Your task to perform on an android device: Go to Reddit.com Image 0: 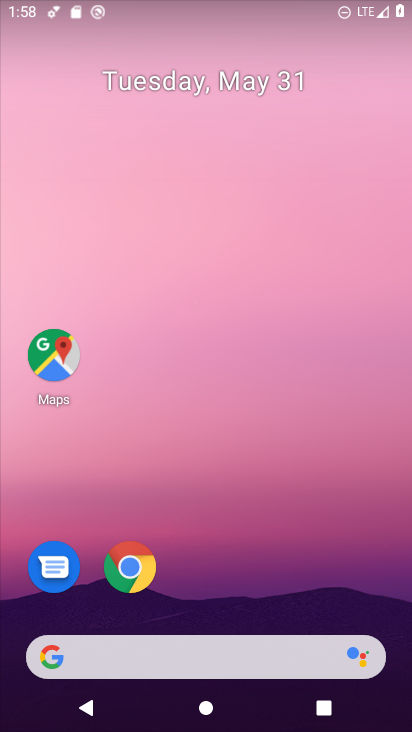
Step 0: click (144, 566)
Your task to perform on an android device: Go to Reddit.com Image 1: 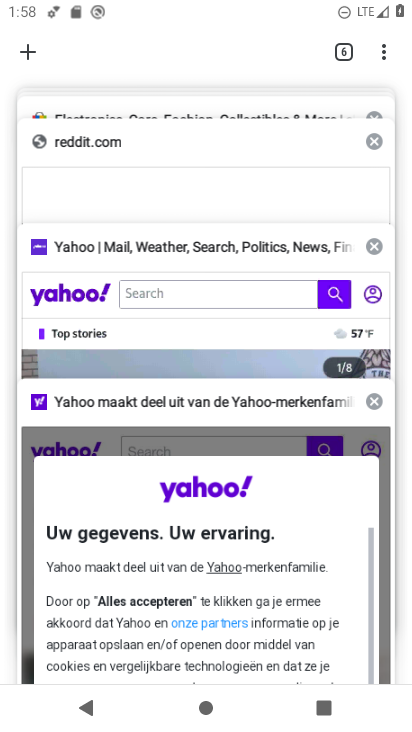
Step 1: click (20, 46)
Your task to perform on an android device: Go to Reddit.com Image 2: 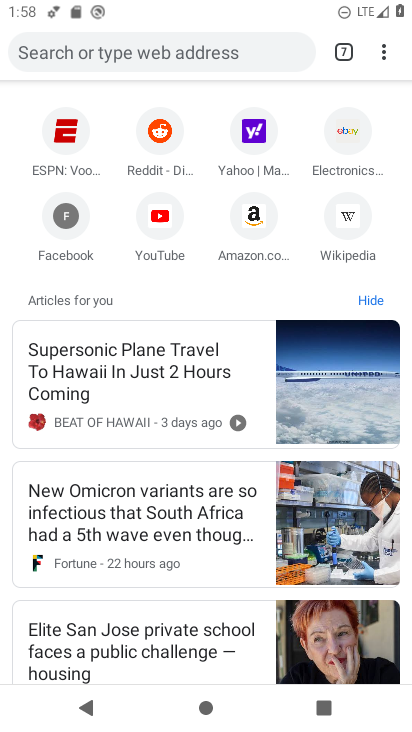
Step 2: click (152, 61)
Your task to perform on an android device: Go to Reddit.com Image 3: 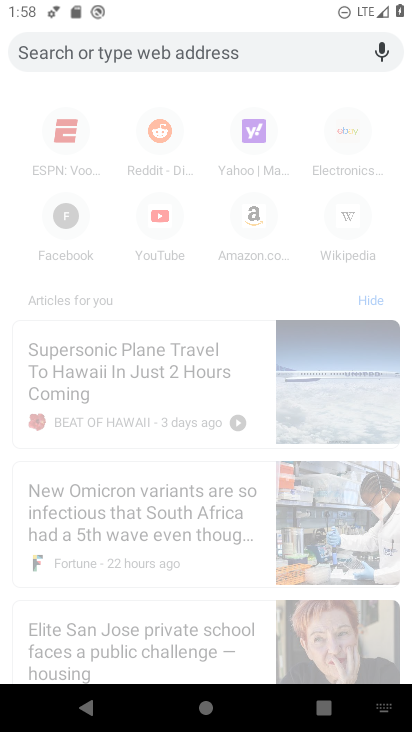
Step 3: type "Reddit.com"
Your task to perform on an android device: Go to Reddit.com Image 4: 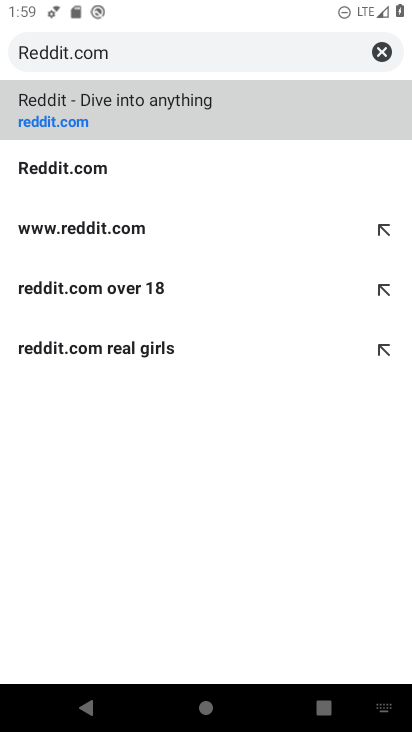
Step 4: click (171, 113)
Your task to perform on an android device: Go to Reddit.com Image 5: 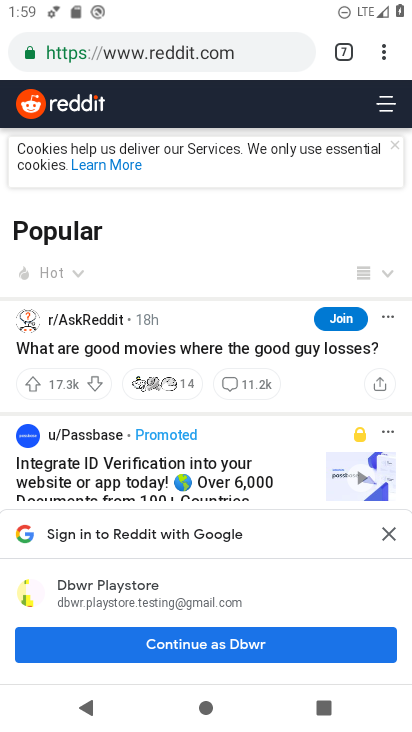
Step 5: task complete